Your task to perform on an android device: Check the news Image 0: 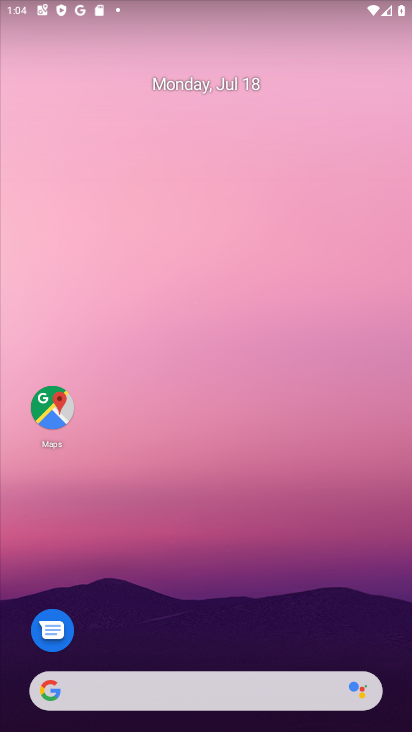
Step 0: drag from (213, 726) to (242, 82)
Your task to perform on an android device: Check the news Image 1: 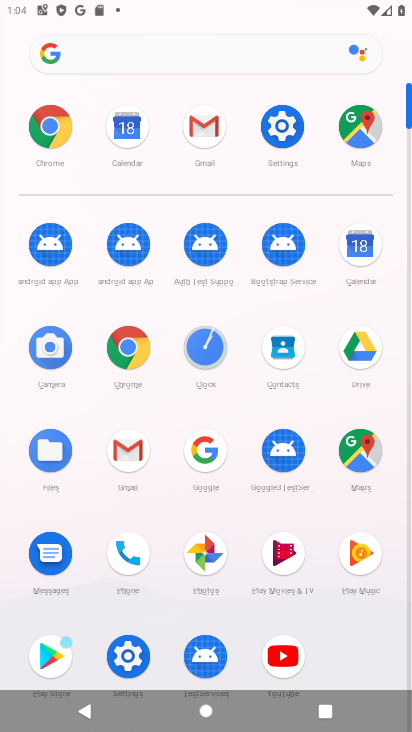
Step 1: click (133, 339)
Your task to perform on an android device: Check the news Image 2: 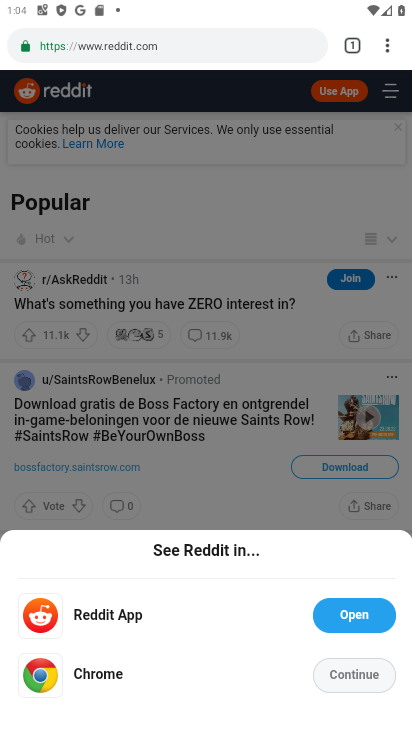
Step 2: click (152, 52)
Your task to perform on an android device: Check the news Image 3: 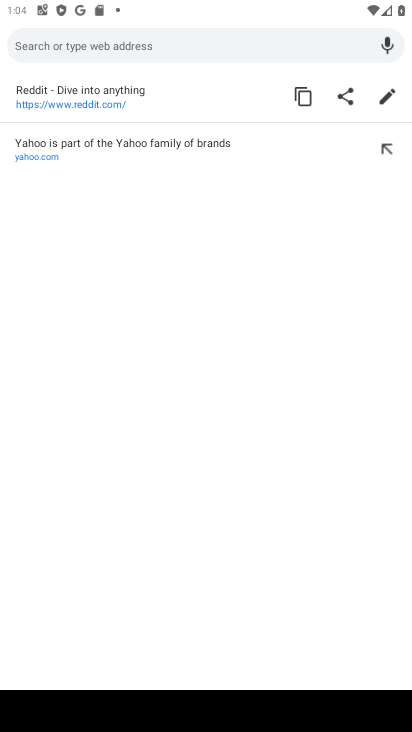
Step 3: type "check the news"
Your task to perform on an android device: Check the news Image 4: 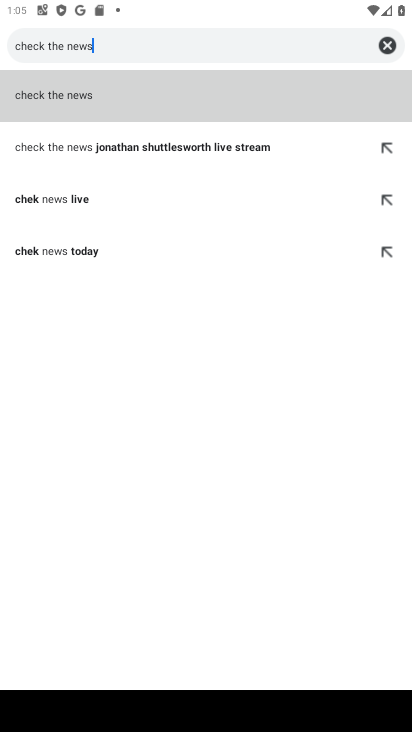
Step 4: click (106, 94)
Your task to perform on an android device: Check the news Image 5: 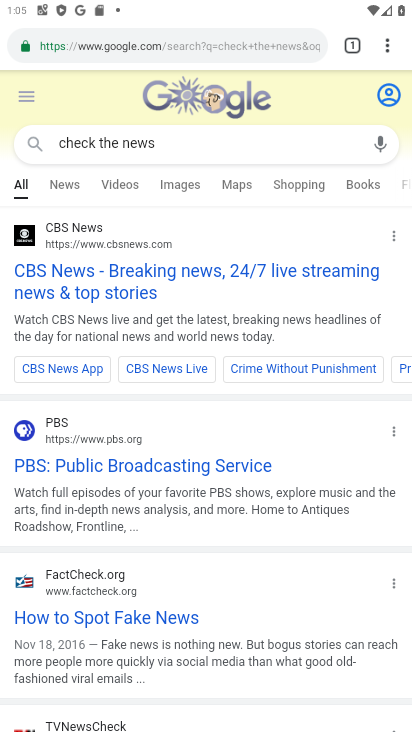
Step 5: task complete